Your task to perform on an android device: Go to internet settings Image 0: 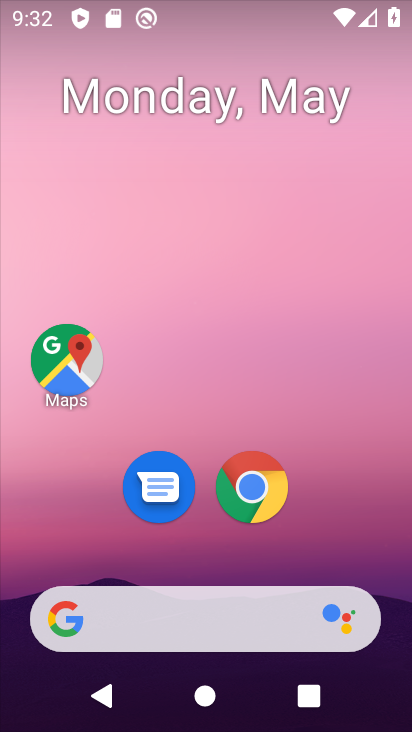
Step 0: drag from (325, 541) to (330, 141)
Your task to perform on an android device: Go to internet settings Image 1: 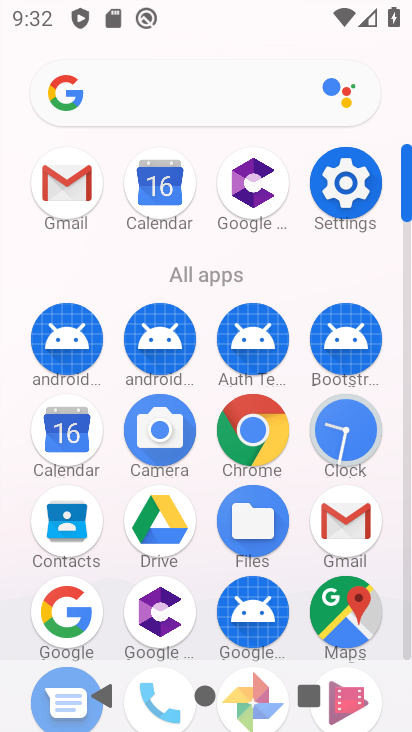
Step 1: click (349, 195)
Your task to perform on an android device: Go to internet settings Image 2: 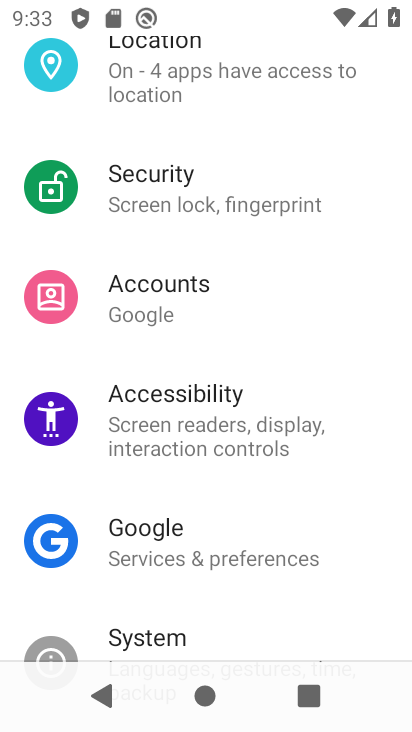
Step 2: drag from (254, 248) to (277, 319)
Your task to perform on an android device: Go to internet settings Image 3: 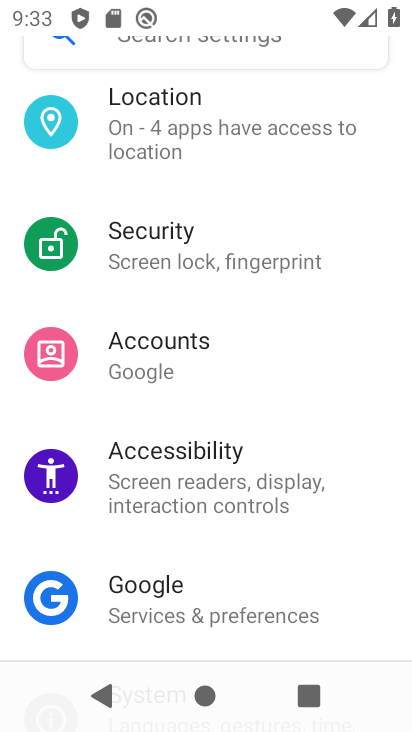
Step 3: drag from (300, 238) to (333, 331)
Your task to perform on an android device: Go to internet settings Image 4: 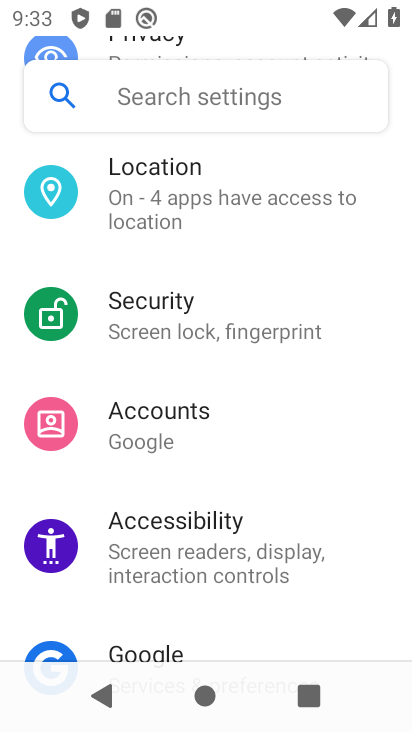
Step 4: drag from (339, 259) to (383, 350)
Your task to perform on an android device: Go to internet settings Image 5: 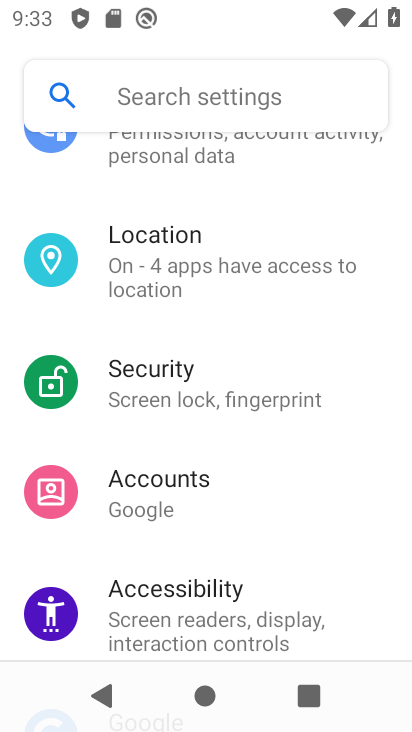
Step 5: drag from (368, 270) to (382, 392)
Your task to perform on an android device: Go to internet settings Image 6: 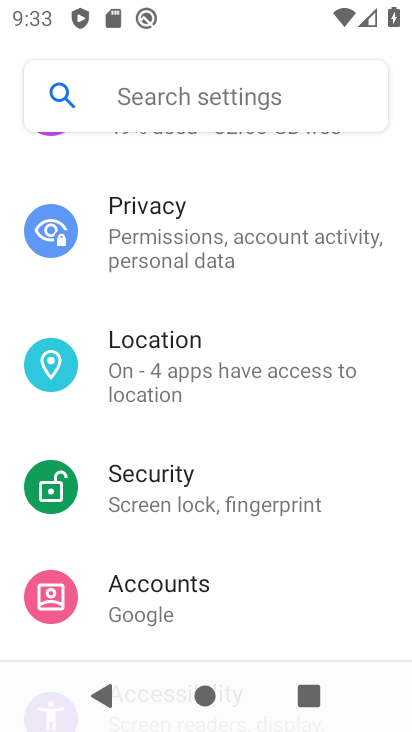
Step 6: drag from (302, 210) to (303, 317)
Your task to perform on an android device: Go to internet settings Image 7: 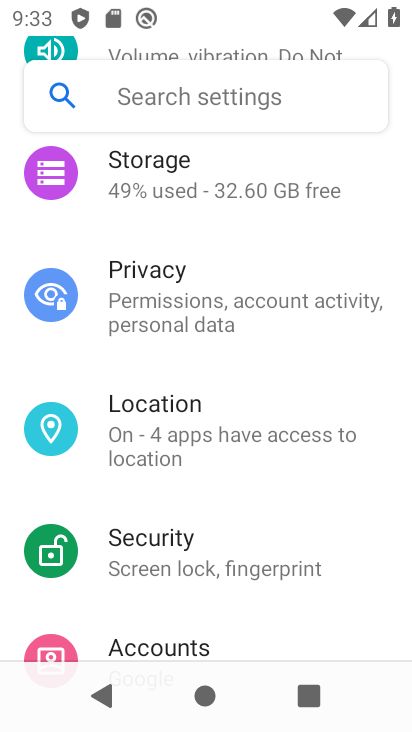
Step 7: drag from (252, 210) to (258, 334)
Your task to perform on an android device: Go to internet settings Image 8: 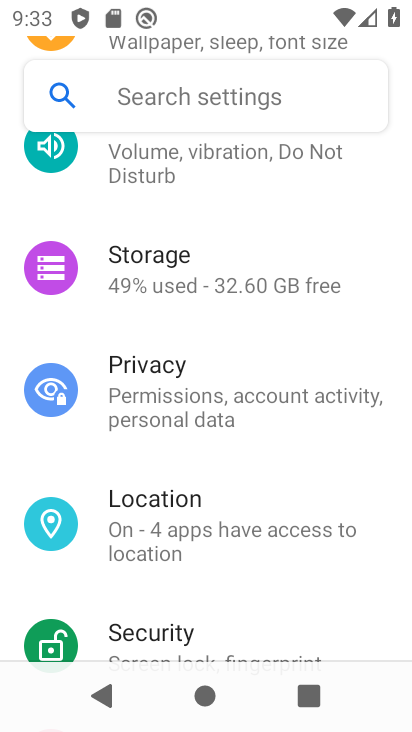
Step 8: drag from (225, 234) to (226, 307)
Your task to perform on an android device: Go to internet settings Image 9: 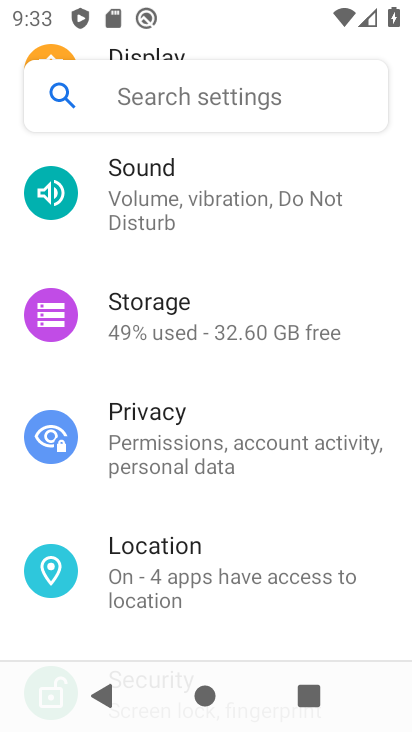
Step 9: drag from (234, 229) to (236, 341)
Your task to perform on an android device: Go to internet settings Image 10: 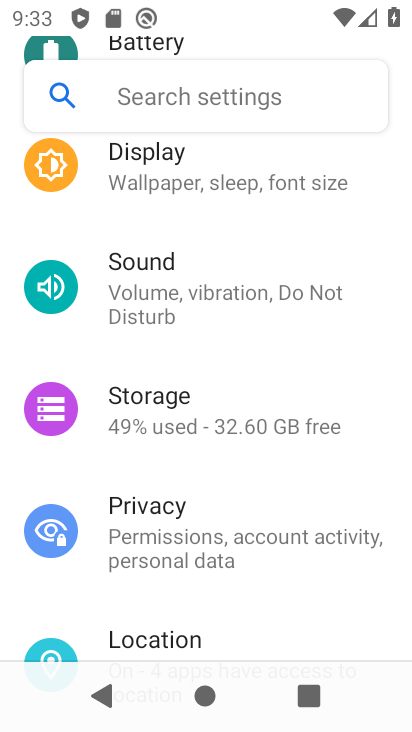
Step 10: drag from (213, 247) to (212, 353)
Your task to perform on an android device: Go to internet settings Image 11: 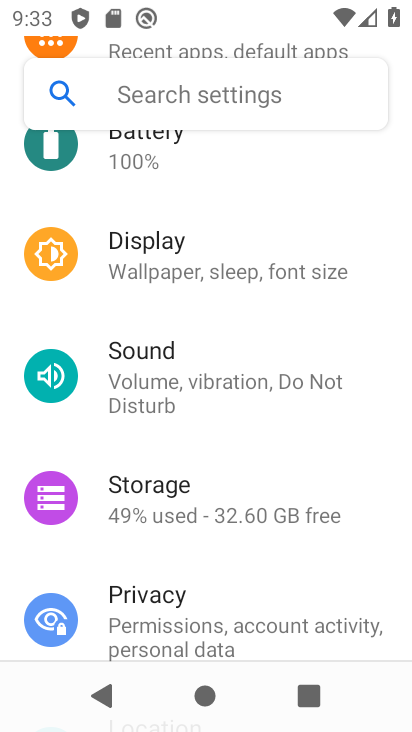
Step 11: drag from (205, 246) to (205, 374)
Your task to perform on an android device: Go to internet settings Image 12: 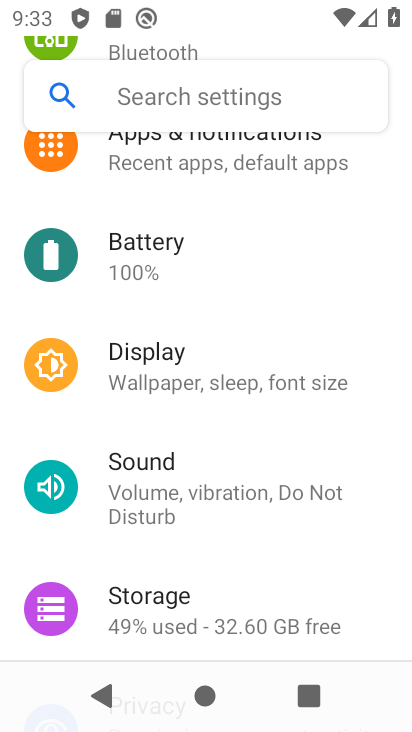
Step 12: drag from (214, 270) to (207, 473)
Your task to perform on an android device: Go to internet settings Image 13: 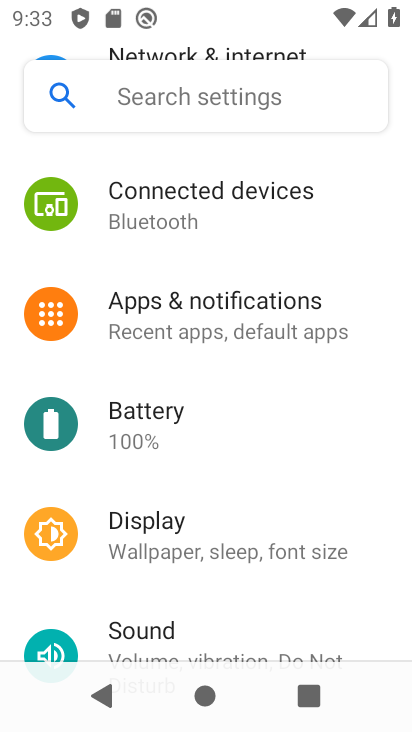
Step 13: drag from (211, 366) to (207, 455)
Your task to perform on an android device: Go to internet settings Image 14: 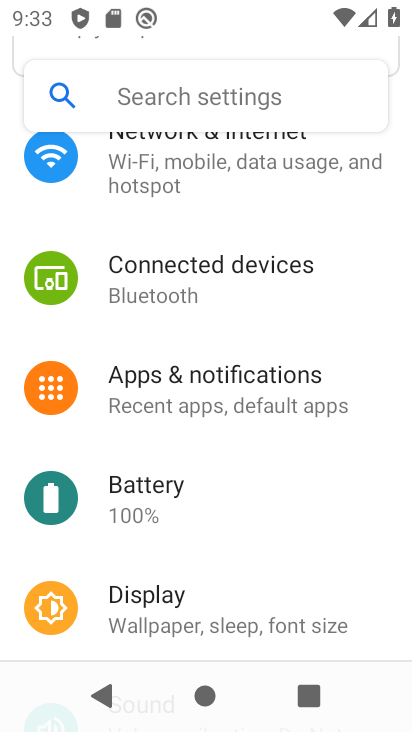
Step 14: drag from (203, 399) to (215, 476)
Your task to perform on an android device: Go to internet settings Image 15: 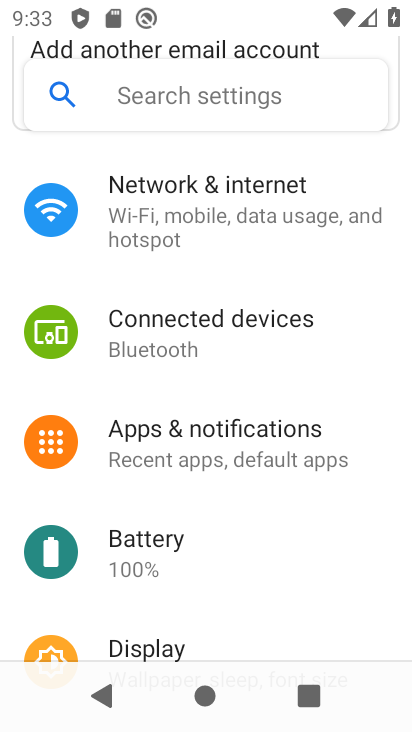
Step 15: click (243, 220)
Your task to perform on an android device: Go to internet settings Image 16: 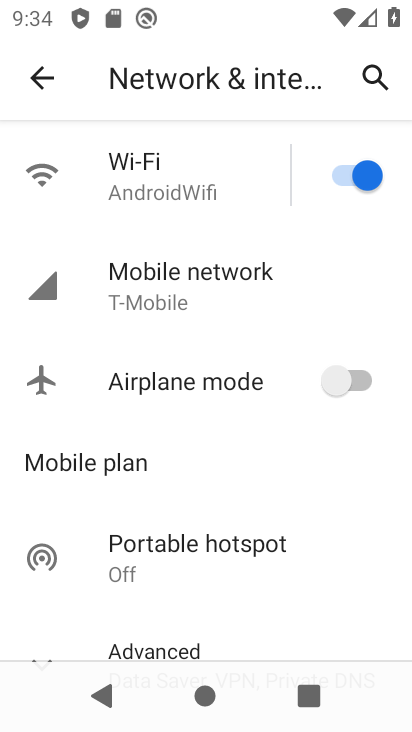
Step 16: click (95, 297)
Your task to perform on an android device: Go to internet settings Image 17: 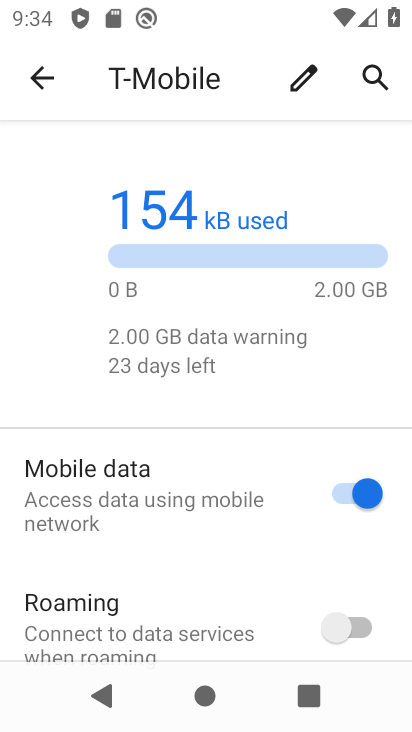
Step 17: task complete